Your task to perform on an android device: Open Android settings Image 0: 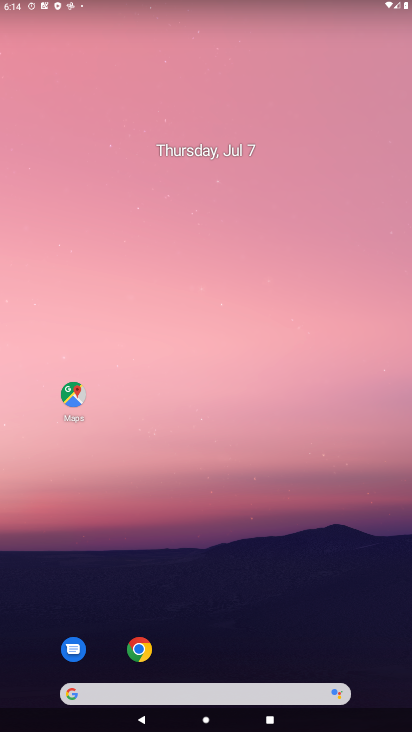
Step 0: drag from (368, 662) to (272, 18)
Your task to perform on an android device: Open Android settings Image 1: 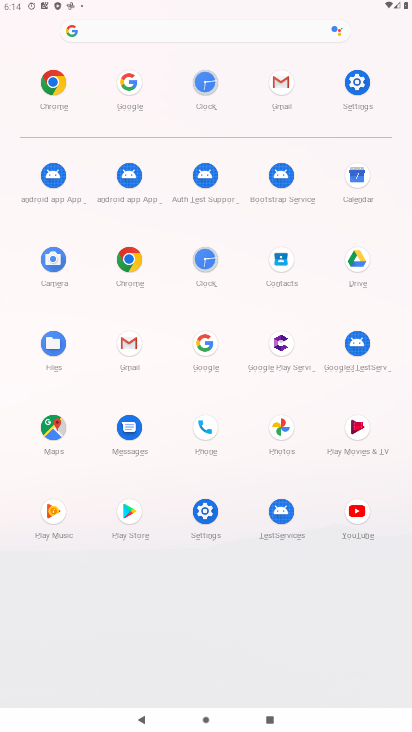
Step 1: click (209, 523)
Your task to perform on an android device: Open Android settings Image 2: 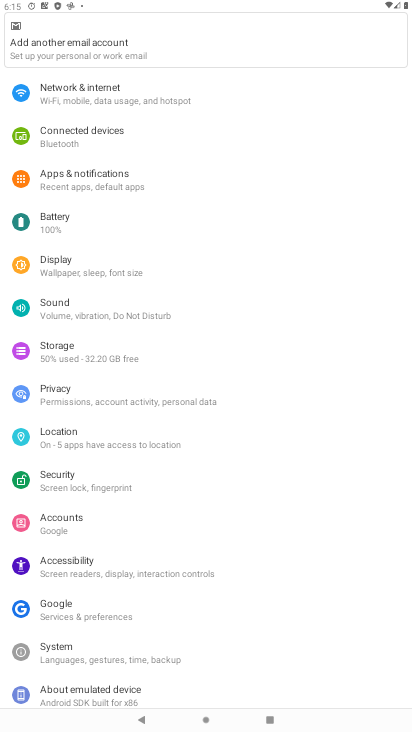
Step 2: click (98, 689)
Your task to perform on an android device: Open Android settings Image 3: 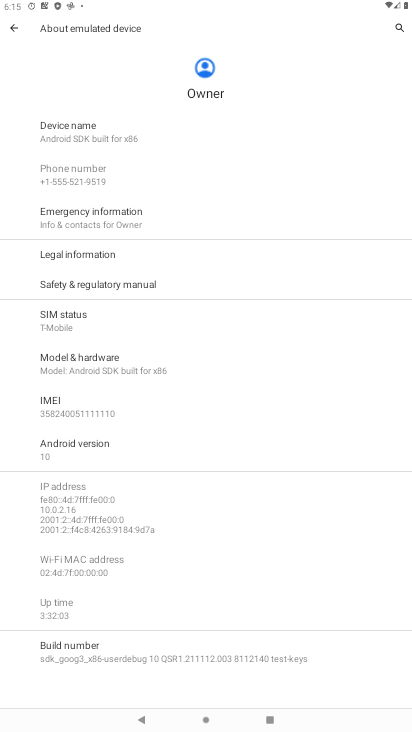
Step 3: task complete